Your task to perform on an android device: Open calendar and show me the third week of next month Image 0: 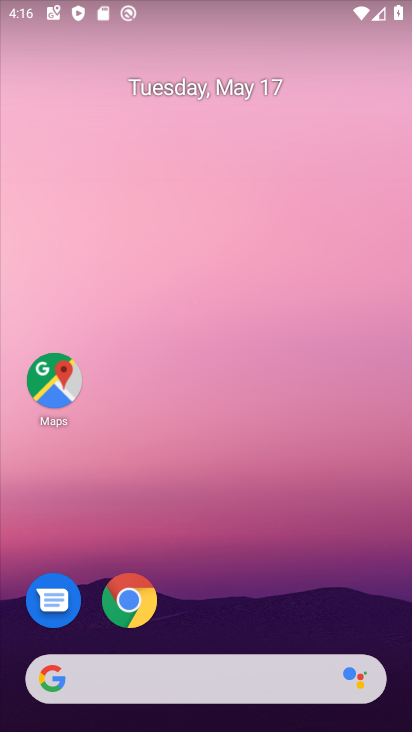
Step 0: drag from (190, 610) to (226, 154)
Your task to perform on an android device: Open calendar and show me the third week of next month Image 1: 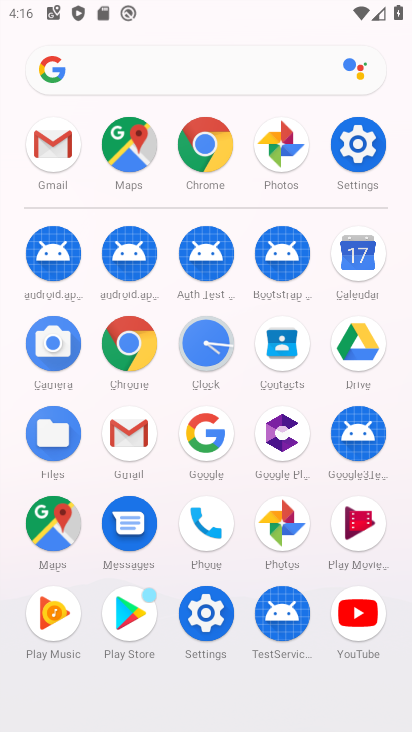
Step 1: click (363, 246)
Your task to perform on an android device: Open calendar and show me the third week of next month Image 2: 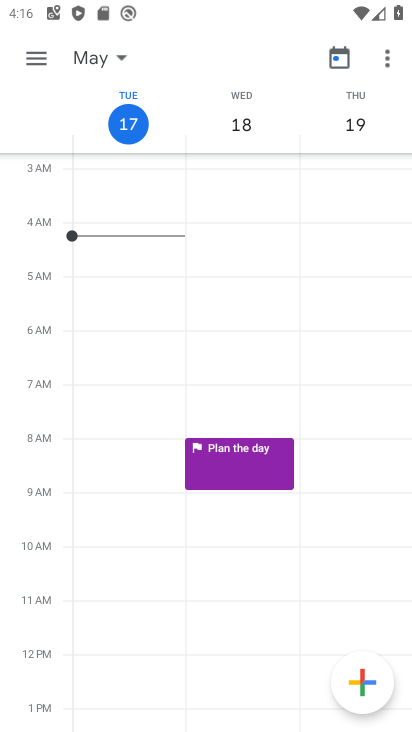
Step 2: click (44, 48)
Your task to perform on an android device: Open calendar and show me the third week of next month Image 3: 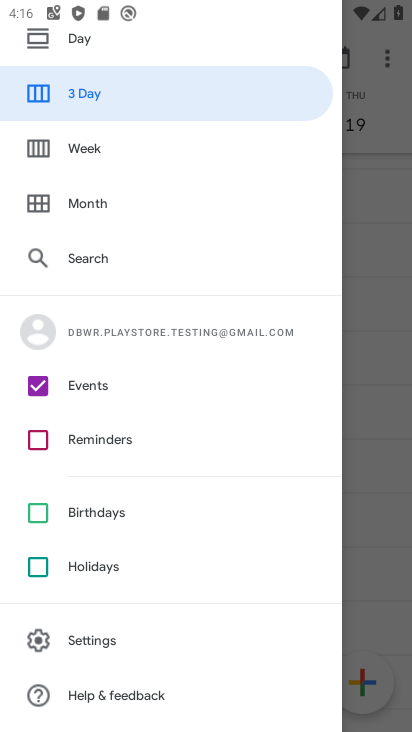
Step 3: click (85, 147)
Your task to perform on an android device: Open calendar and show me the third week of next month Image 4: 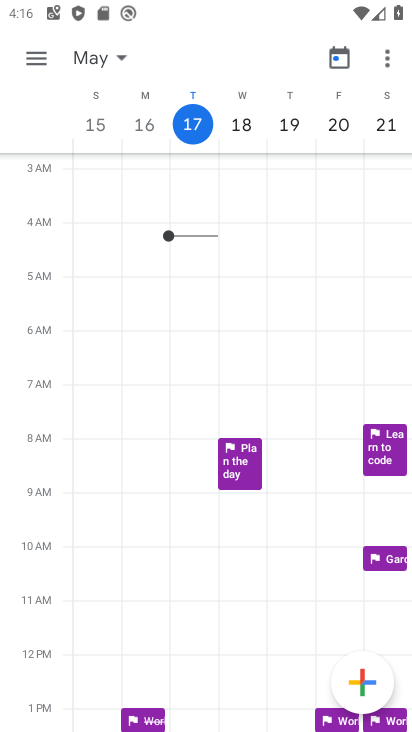
Step 4: task complete